Your task to perform on an android device: Search for a new eyeshadow Image 0: 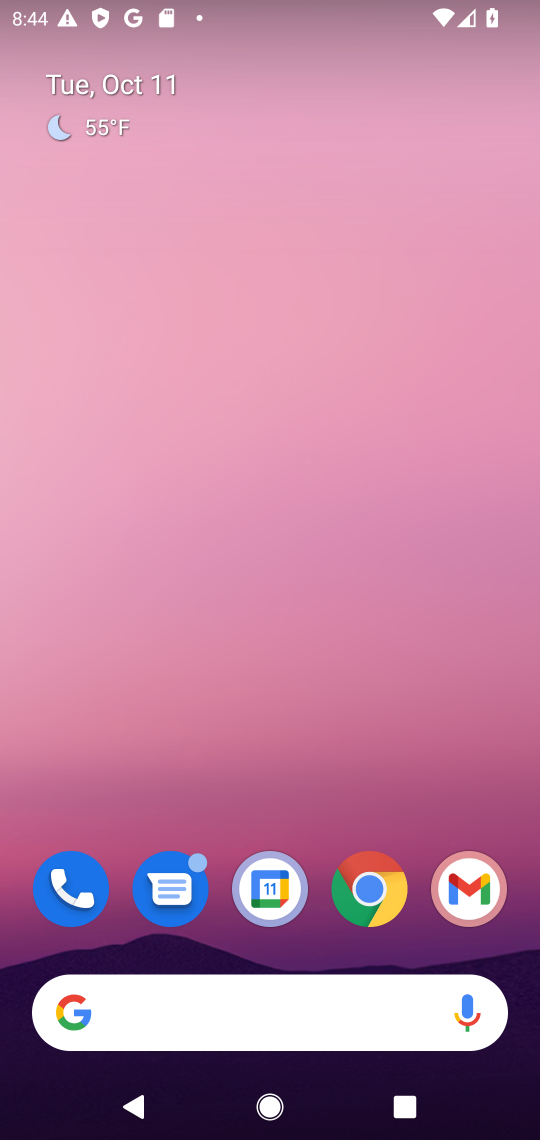
Step 0: click (203, 988)
Your task to perform on an android device: Search for a new eyeshadow Image 1: 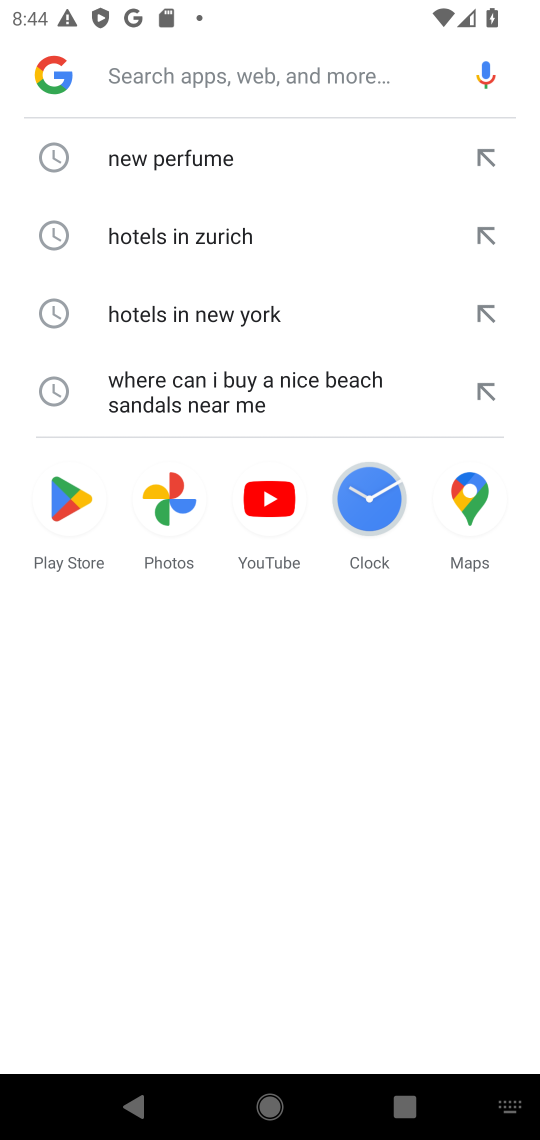
Step 1: click (143, 86)
Your task to perform on an android device: Search for a new eyeshadow Image 2: 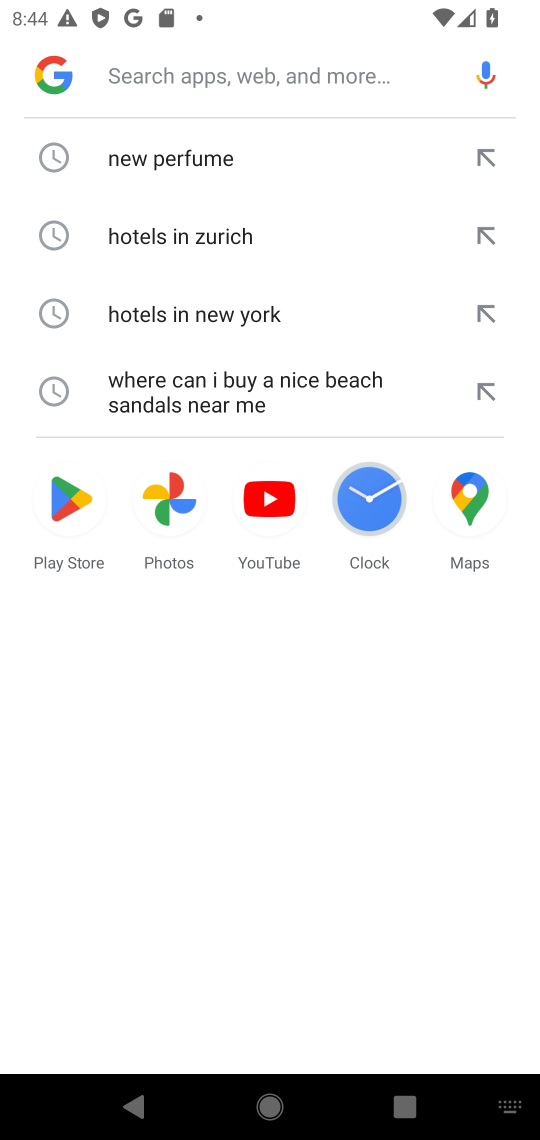
Step 2: type "new eyeshadow"
Your task to perform on an android device: Search for a new eyeshadow Image 3: 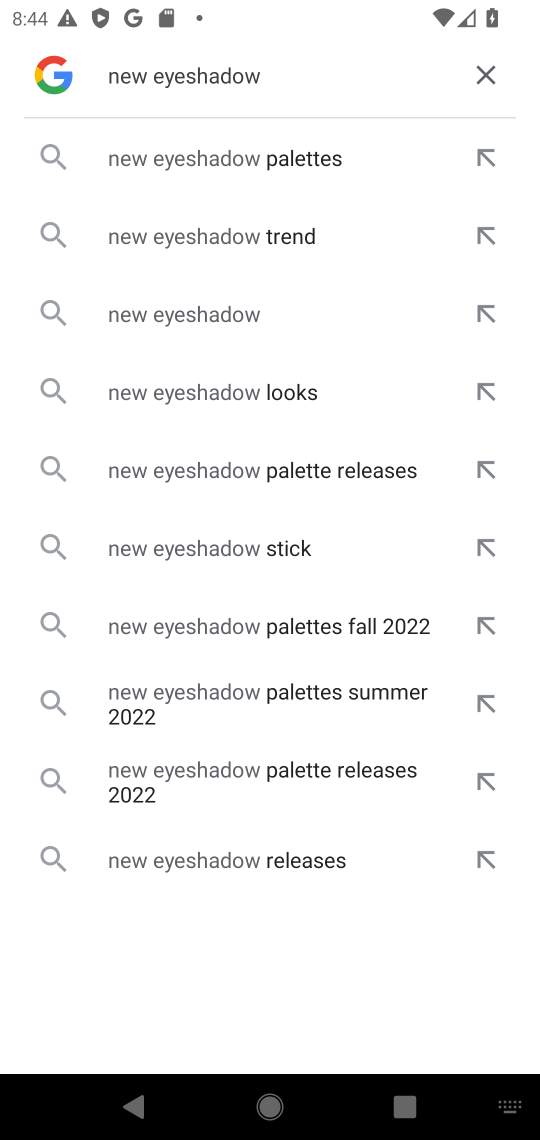
Step 3: click (196, 316)
Your task to perform on an android device: Search for a new eyeshadow Image 4: 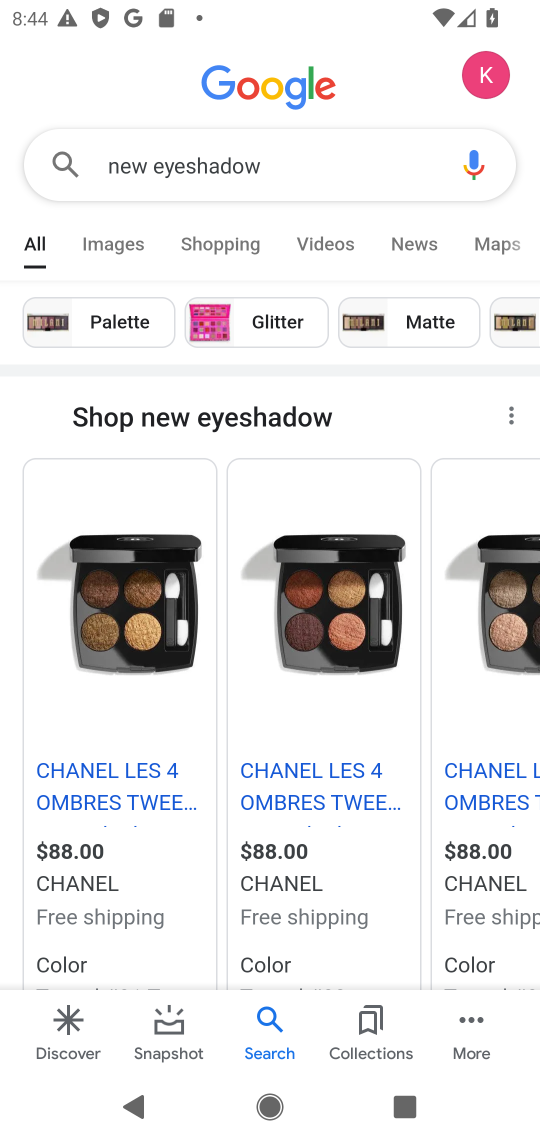
Step 4: task complete